Your task to perform on an android device: Go to Yahoo.com Image 0: 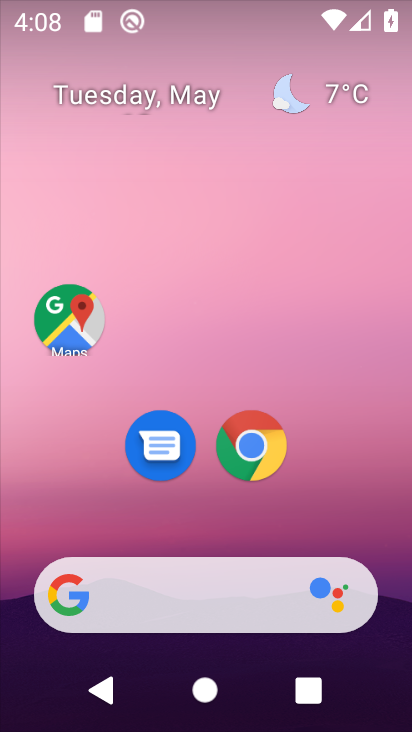
Step 0: click (243, 467)
Your task to perform on an android device: Go to Yahoo.com Image 1: 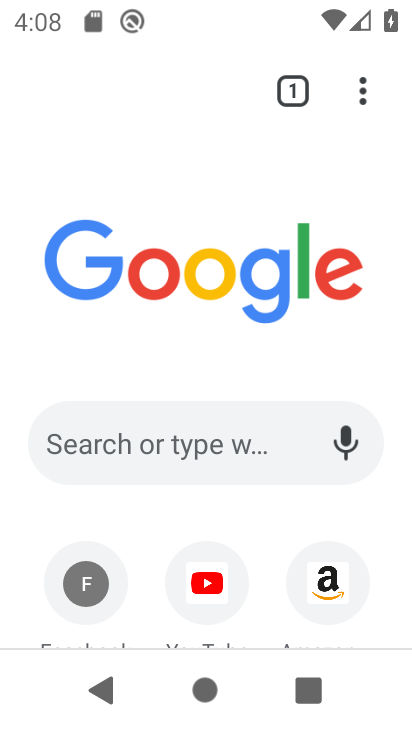
Step 1: drag from (243, 494) to (261, 161)
Your task to perform on an android device: Go to Yahoo.com Image 2: 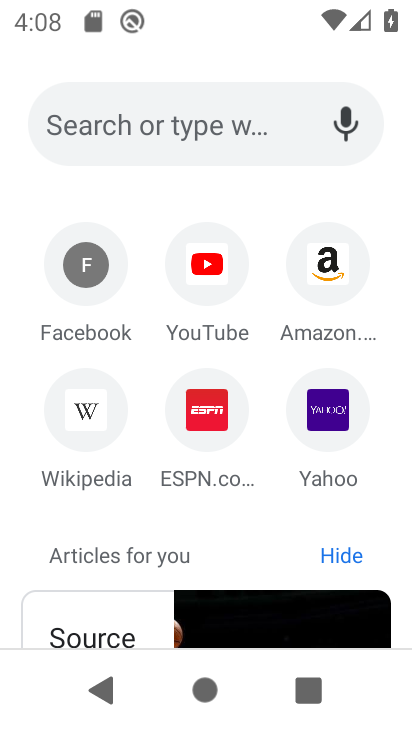
Step 2: click (312, 414)
Your task to perform on an android device: Go to Yahoo.com Image 3: 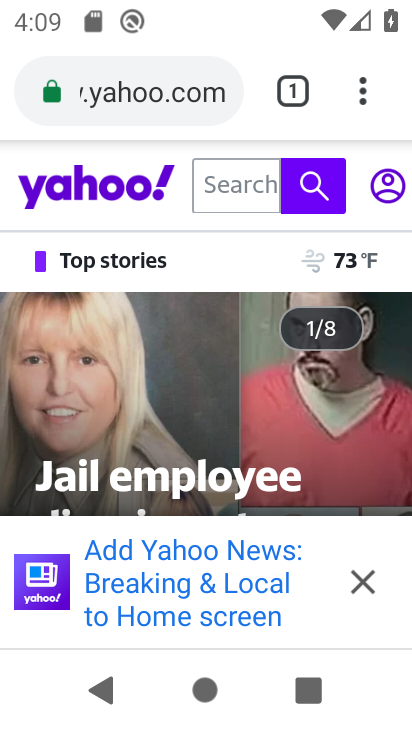
Step 3: task complete